Your task to perform on an android device: turn on wifi Image 0: 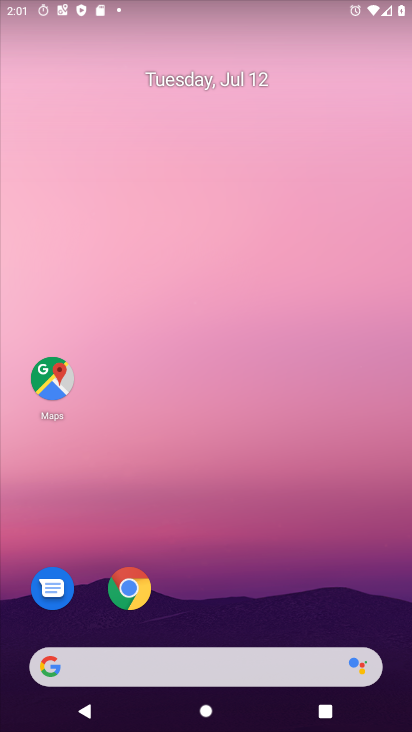
Step 0: drag from (222, 341) to (281, 110)
Your task to perform on an android device: turn on wifi Image 1: 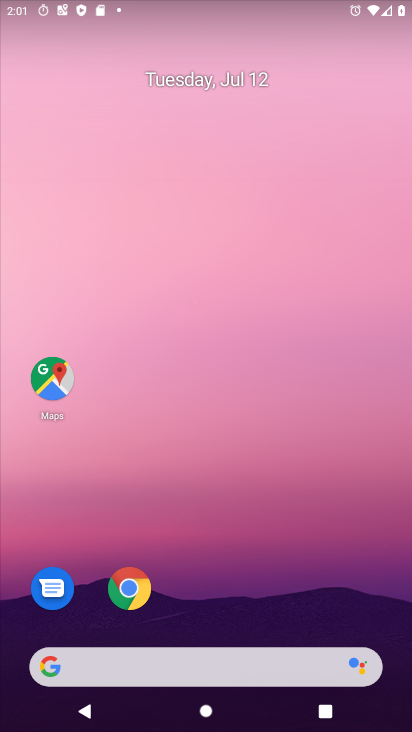
Step 1: drag from (169, 611) to (251, 94)
Your task to perform on an android device: turn on wifi Image 2: 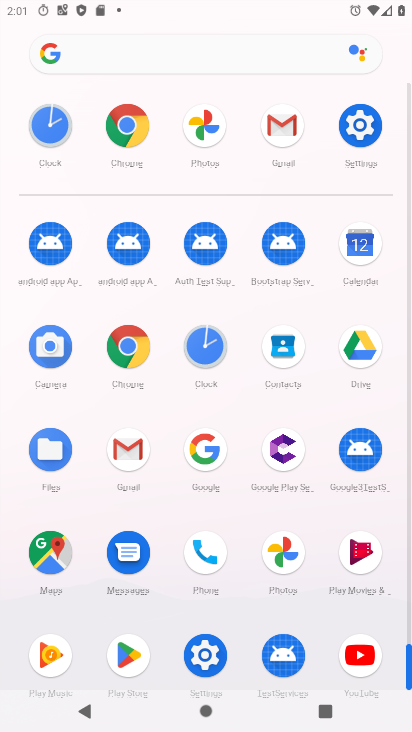
Step 2: click (366, 110)
Your task to perform on an android device: turn on wifi Image 3: 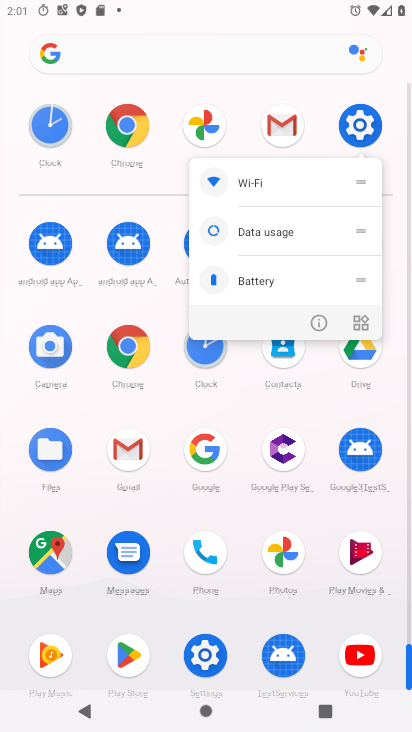
Step 3: click (323, 324)
Your task to perform on an android device: turn on wifi Image 4: 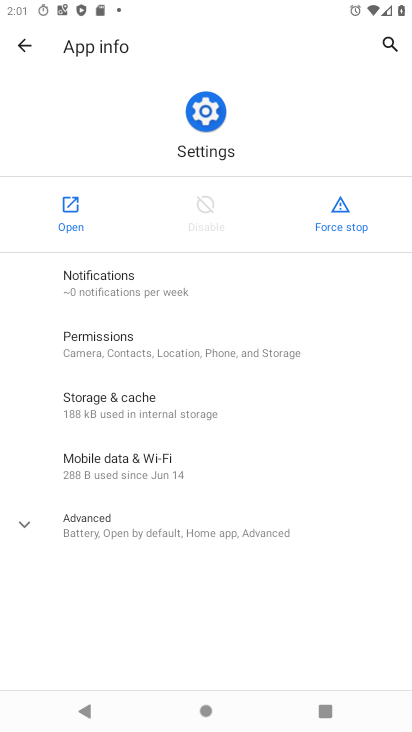
Step 4: click (74, 206)
Your task to perform on an android device: turn on wifi Image 5: 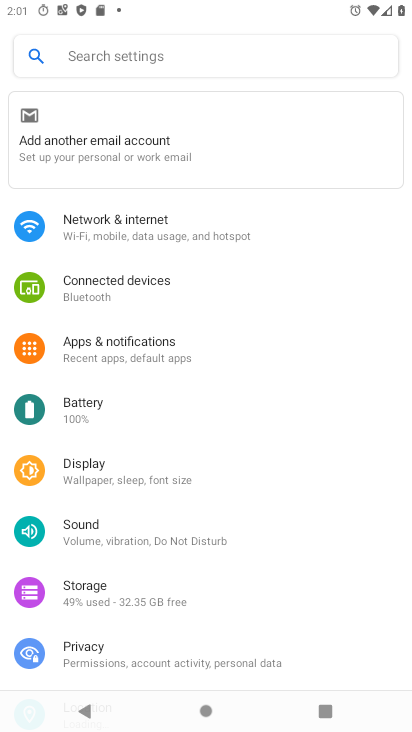
Step 5: click (156, 227)
Your task to perform on an android device: turn on wifi Image 6: 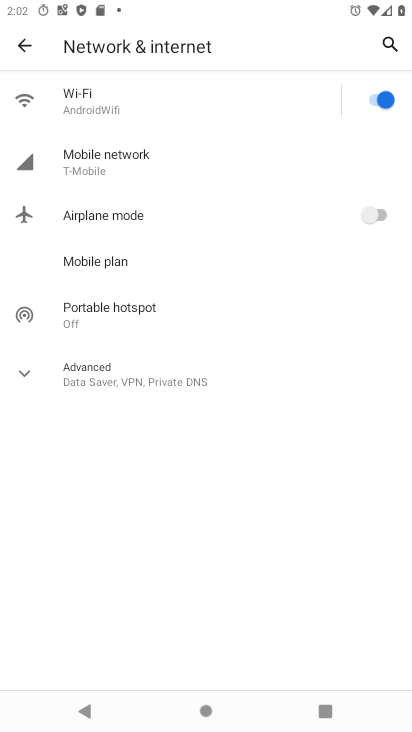
Step 6: click (157, 103)
Your task to perform on an android device: turn on wifi Image 7: 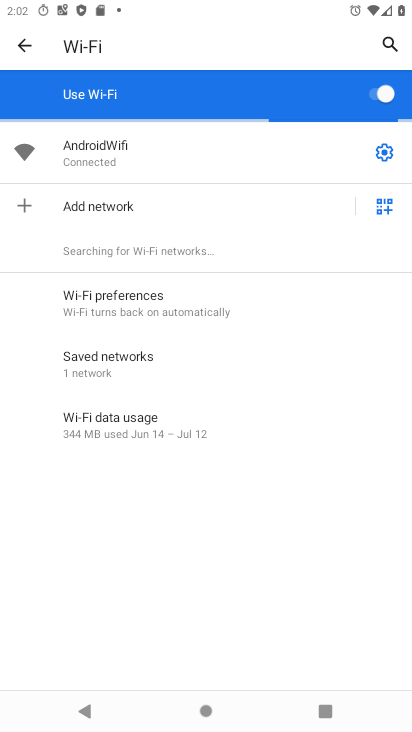
Step 7: task complete